Your task to perform on an android device: Open Google Chrome and click the shortcut for Amazon.com Image 0: 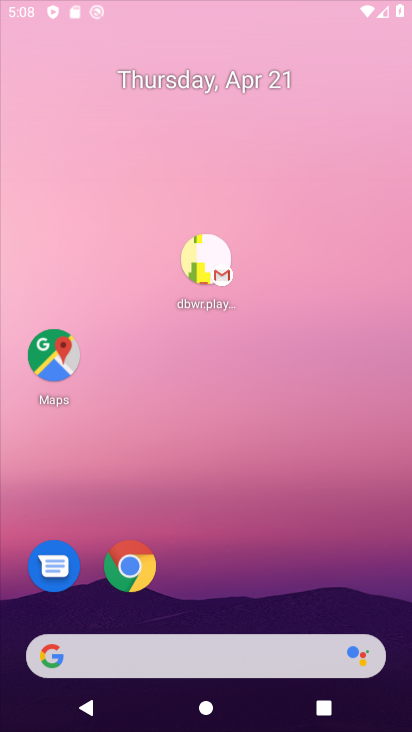
Step 0: drag from (173, 441) to (246, 36)
Your task to perform on an android device: Open Google Chrome and click the shortcut for Amazon.com Image 1: 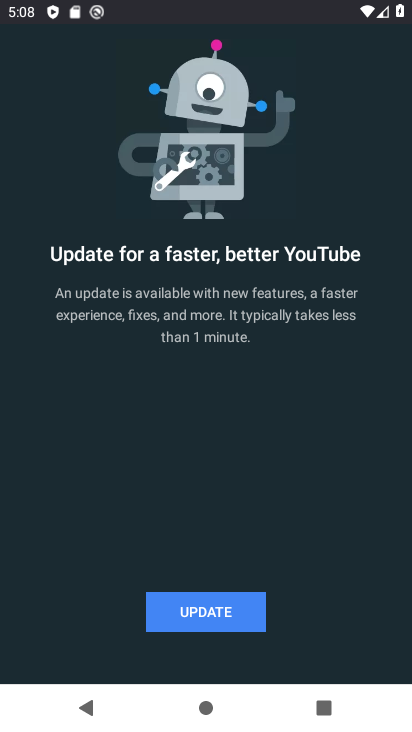
Step 1: press home button
Your task to perform on an android device: Open Google Chrome and click the shortcut for Amazon.com Image 2: 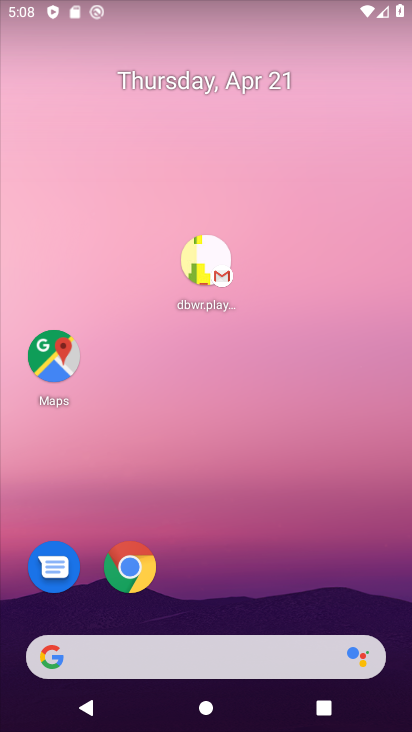
Step 2: click (131, 563)
Your task to perform on an android device: Open Google Chrome and click the shortcut for Amazon.com Image 3: 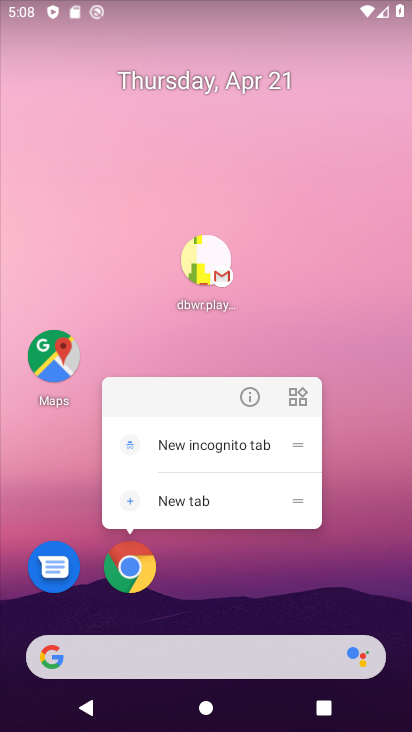
Step 3: click (250, 389)
Your task to perform on an android device: Open Google Chrome and click the shortcut for Amazon.com Image 4: 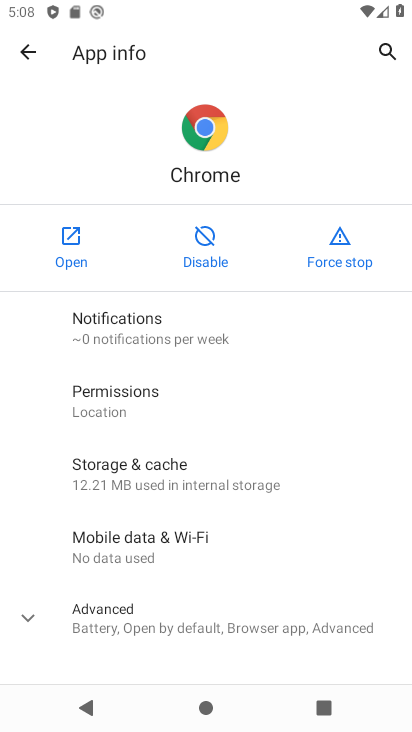
Step 4: click (74, 252)
Your task to perform on an android device: Open Google Chrome and click the shortcut for Amazon.com Image 5: 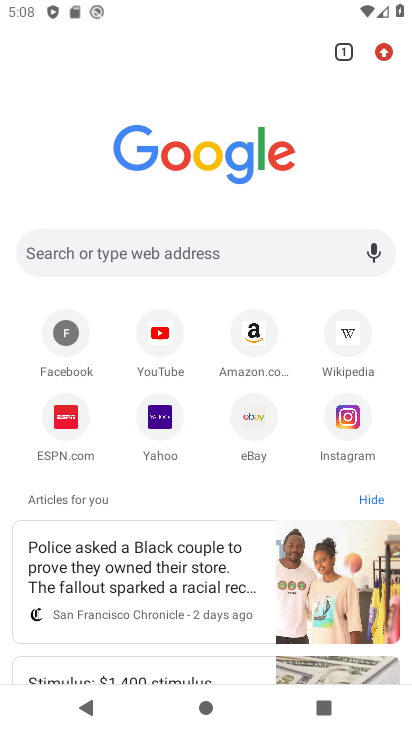
Step 5: click (257, 340)
Your task to perform on an android device: Open Google Chrome and click the shortcut for Amazon.com Image 6: 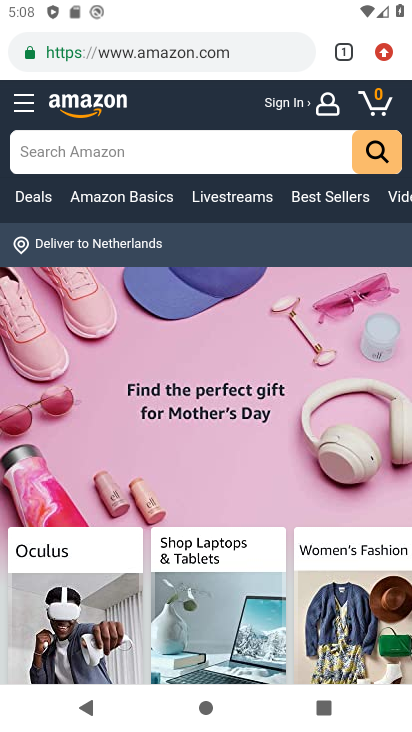
Step 6: task complete